Your task to perform on an android device: toggle notifications settings in the gmail app Image 0: 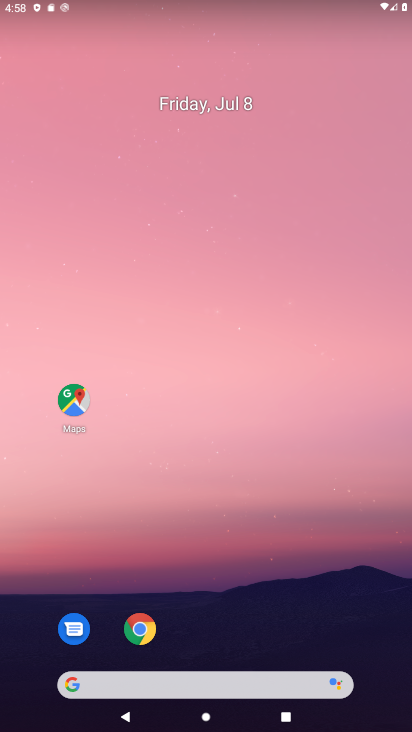
Step 0: drag from (205, 642) to (236, 69)
Your task to perform on an android device: toggle notifications settings in the gmail app Image 1: 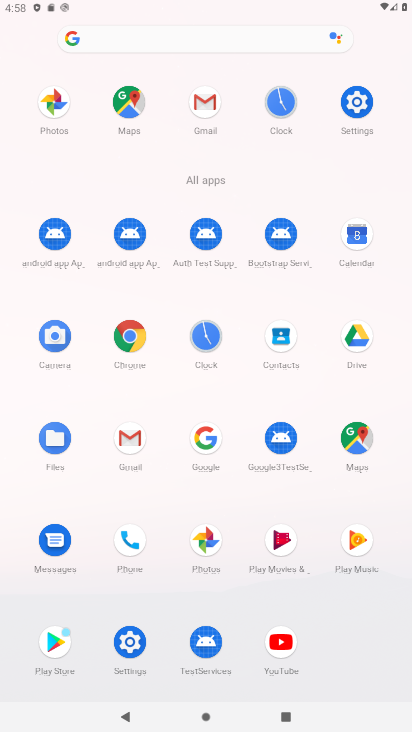
Step 1: click (207, 104)
Your task to perform on an android device: toggle notifications settings in the gmail app Image 2: 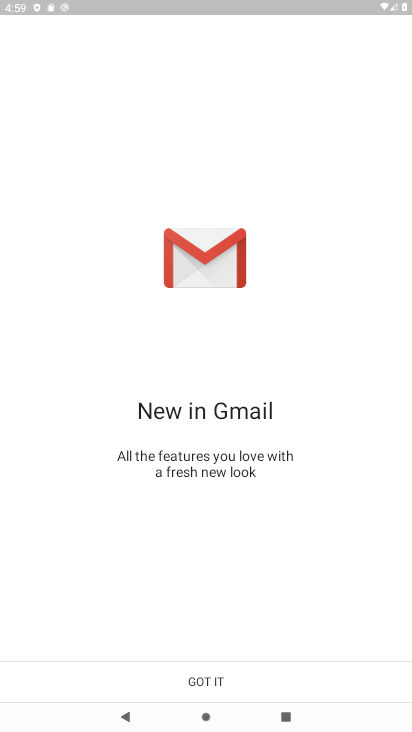
Step 2: click (207, 683)
Your task to perform on an android device: toggle notifications settings in the gmail app Image 3: 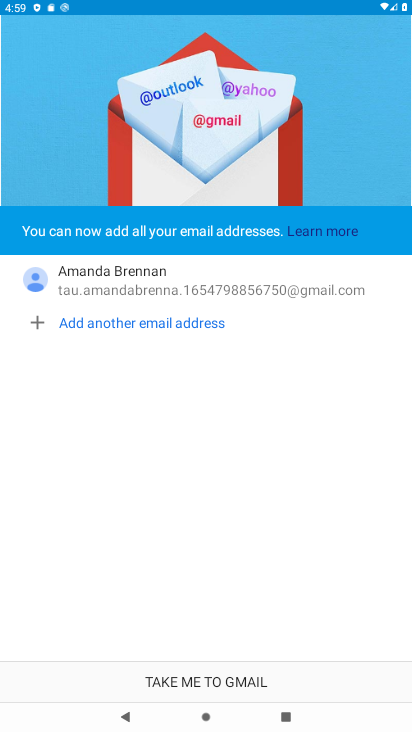
Step 3: click (210, 678)
Your task to perform on an android device: toggle notifications settings in the gmail app Image 4: 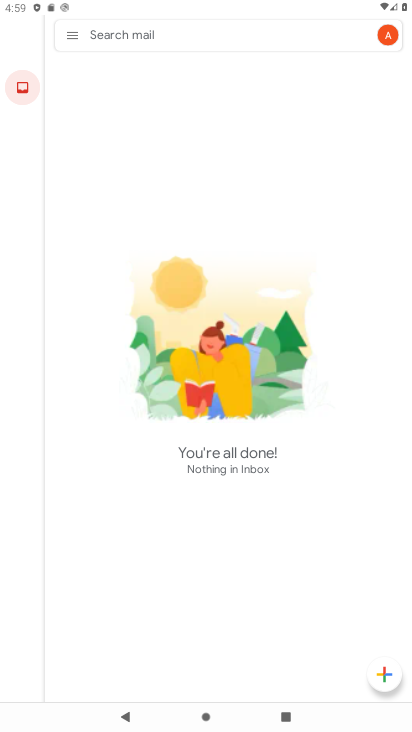
Step 4: click (71, 35)
Your task to perform on an android device: toggle notifications settings in the gmail app Image 5: 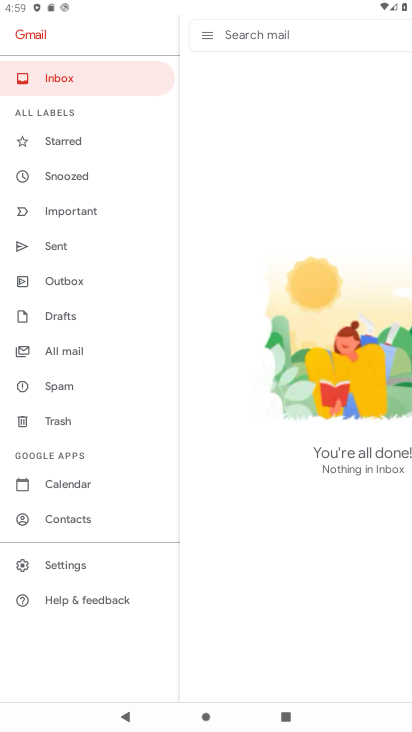
Step 5: click (69, 563)
Your task to perform on an android device: toggle notifications settings in the gmail app Image 6: 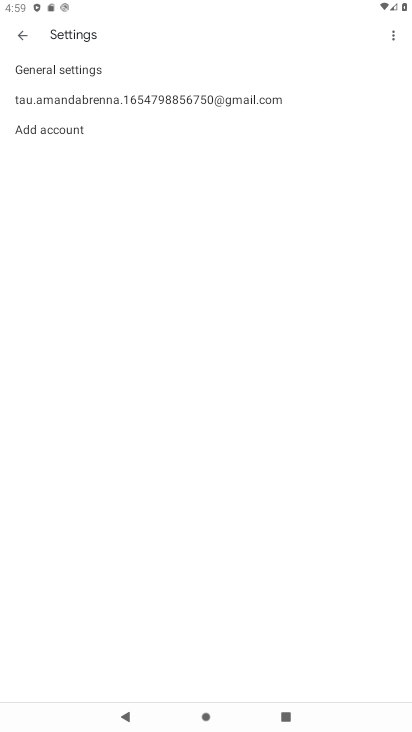
Step 6: click (192, 100)
Your task to perform on an android device: toggle notifications settings in the gmail app Image 7: 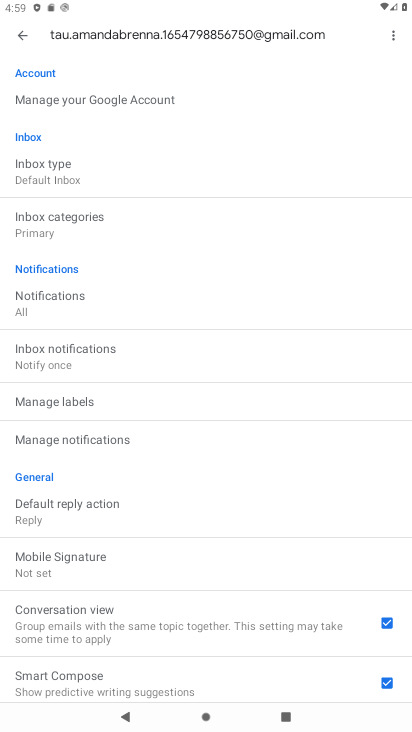
Step 7: click (73, 439)
Your task to perform on an android device: toggle notifications settings in the gmail app Image 8: 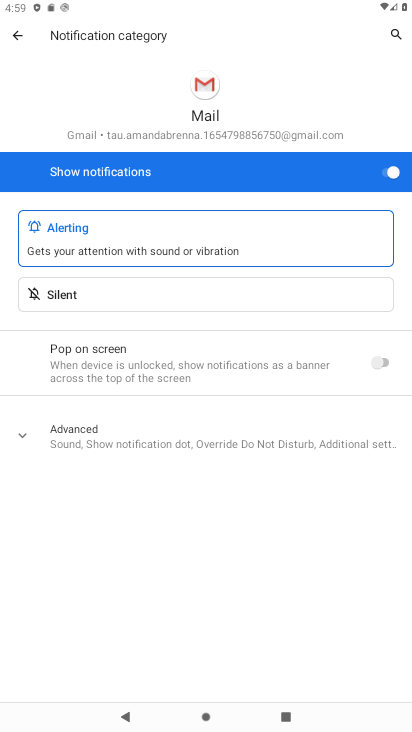
Step 8: click (391, 172)
Your task to perform on an android device: toggle notifications settings in the gmail app Image 9: 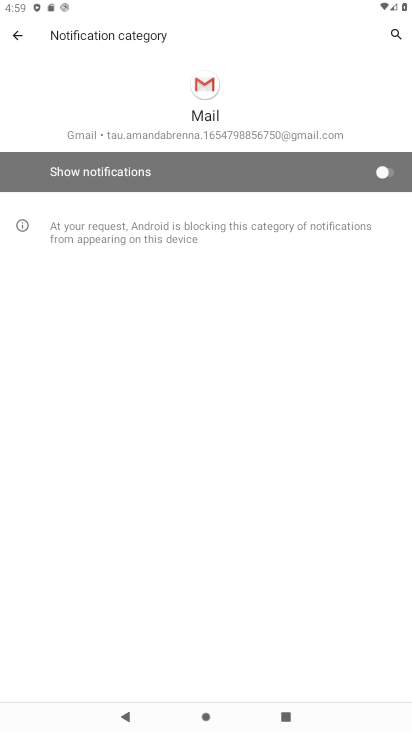
Step 9: task complete